Your task to perform on an android device: turn on showing notifications on the lock screen Image 0: 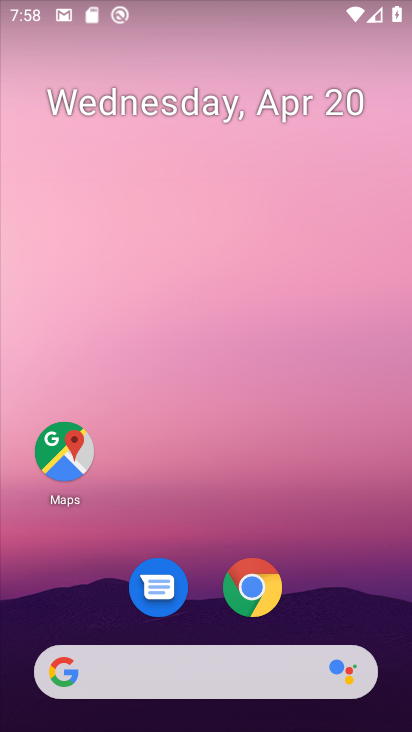
Step 0: drag from (209, 572) to (205, 4)
Your task to perform on an android device: turn on showing notifications on the lock screen Image 1: 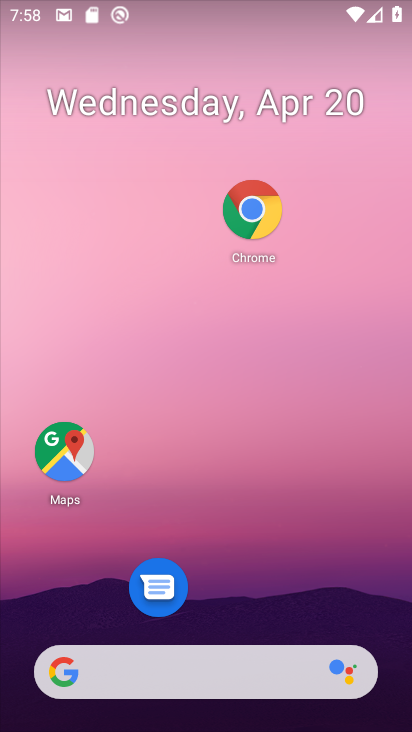
Step 1: drag from (215, 612) to (208, 75)
Your task to perform on an android device: turn on showing notifications on the lock screen Image 2: 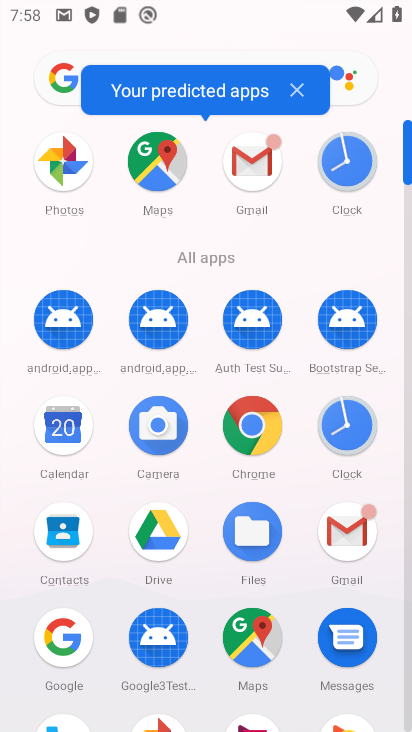
Step 2: drag from (117, 595) to (83, 168)
Your task to perform on an android device: turn on showing notifications on the lock screen Image 3: 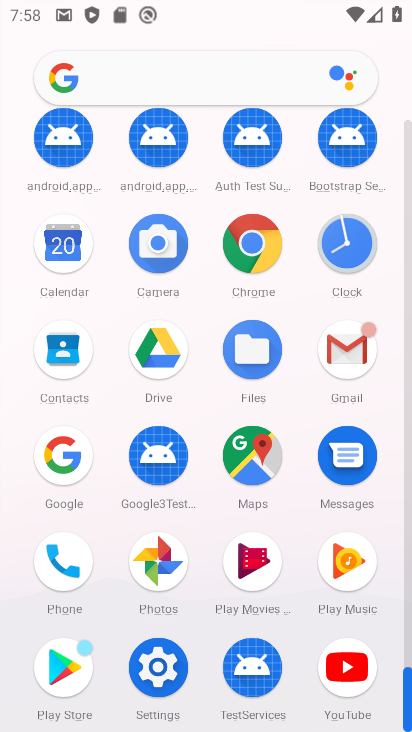
Step 3: click (149, 677)
Your task to perform on an android device: turn on showing notifications on the lock screen Image 4: 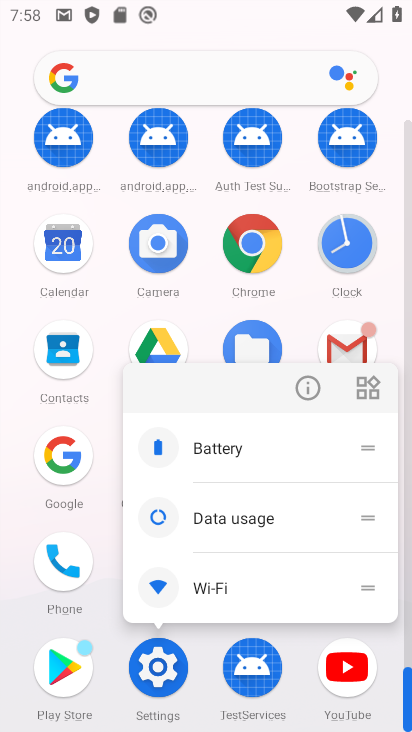
Step 4: click (160, 671)
Your task to perform on an android device: turn on showing notifications on the lock screen Image 5: 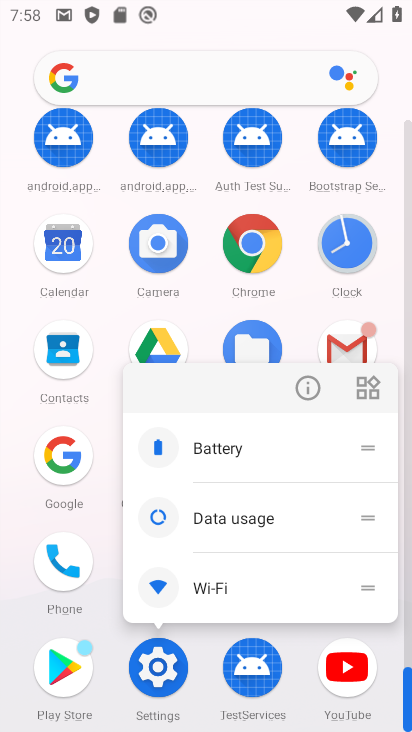
Step 5: click (167, 663)
Your task to perform on an android device: turn on showing notifications on the lock screen Image 6: 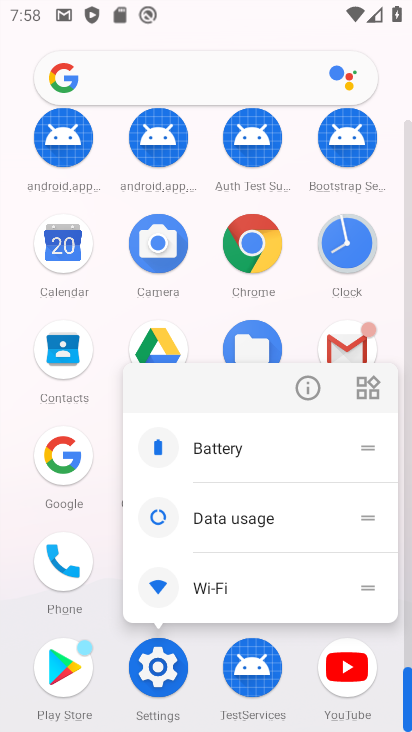
Step 6: click (157, 667)
Your task to perform on an android device: turn on showing notifications on the lock screen Image 7: 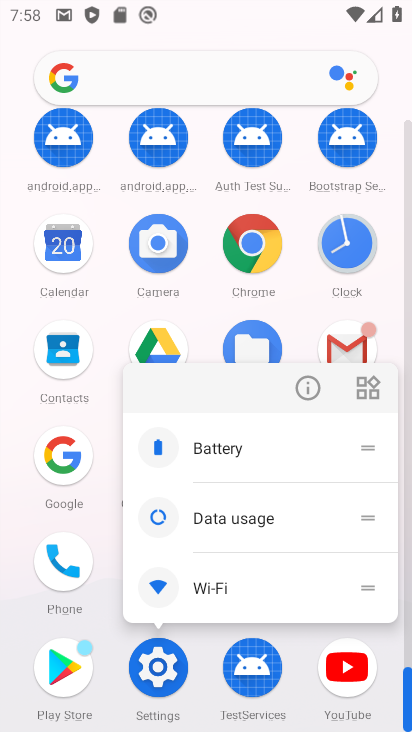
Step 7: click (144, 662)
Your task to perform on an android device: turn on showing notifications on the lock screen Image 8: 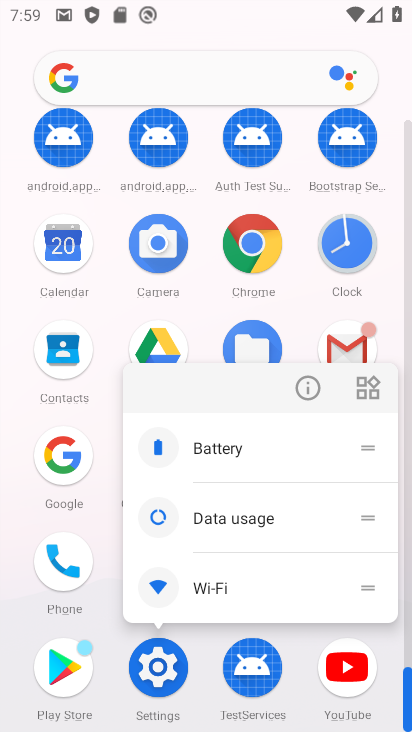
Step 8: click (148, 650)
Your task to perform on an android device: turn on showing notifications on the lock screen Image 9: 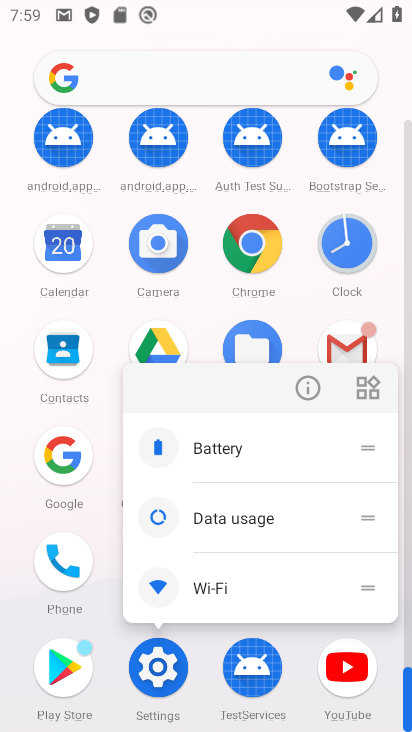
Step 9: click (163, 673)
Your task to perform on an android device: turn on showing notifications on the lock screen Image 10: 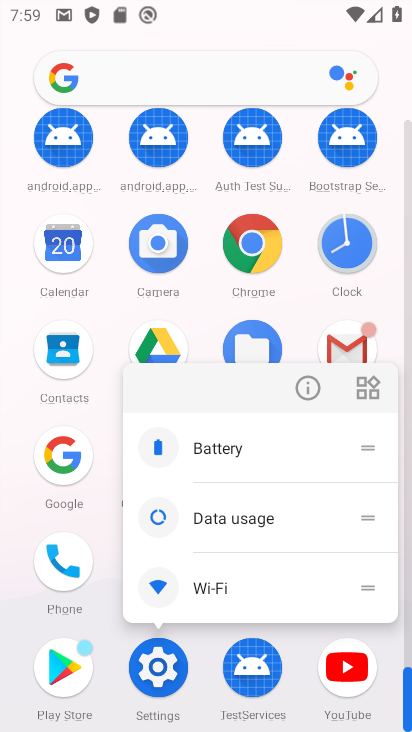
Step 10: click (162, 673)
Your task to perform on an android device: turn on showing notifications on the lock screen Image 11: 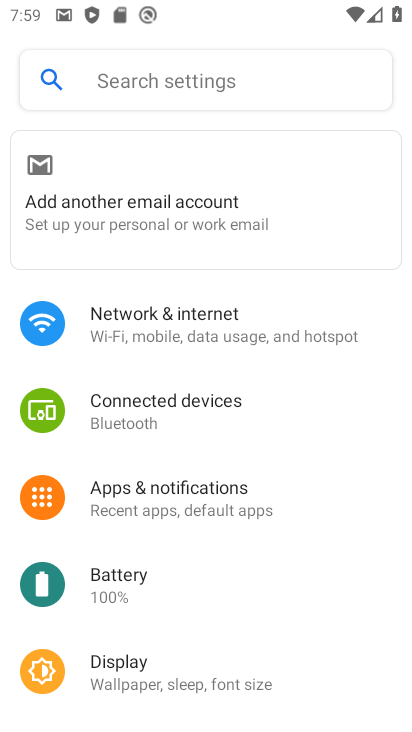
Step 11: drag from (306, 599) to (294, 229)
Your task to perform on an android device: turn on showing notifications on the lock screen Image 12: 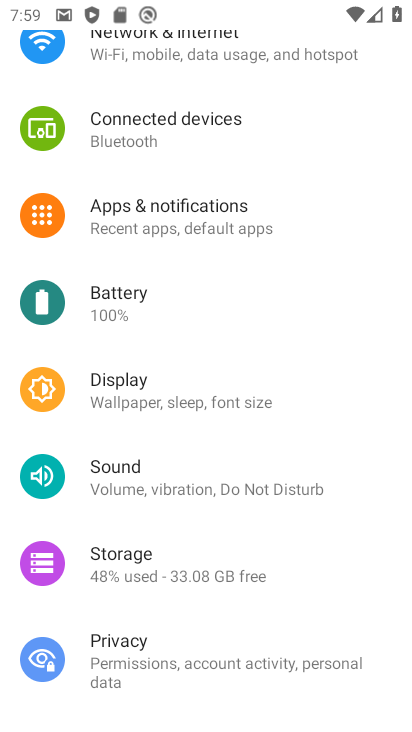
Step 12: click (131, 218)
Your task to perform on an android device: turn on showing notifications on the lock screen Image 13: 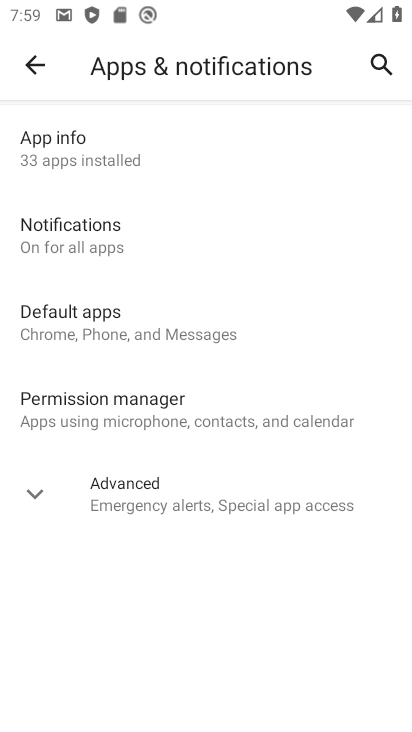
Step 13: click (75, 255)
Your task to perform on an android device: turn on showing notifications on the lock screen Image 14: 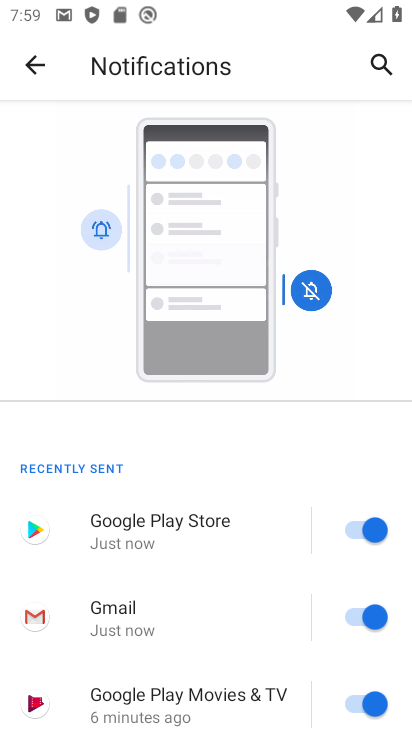
Step 14: drag from (268, 578) to (224, 77)
Your task to perform on an android device: turn on showing notifications on the lock screen Image 15: 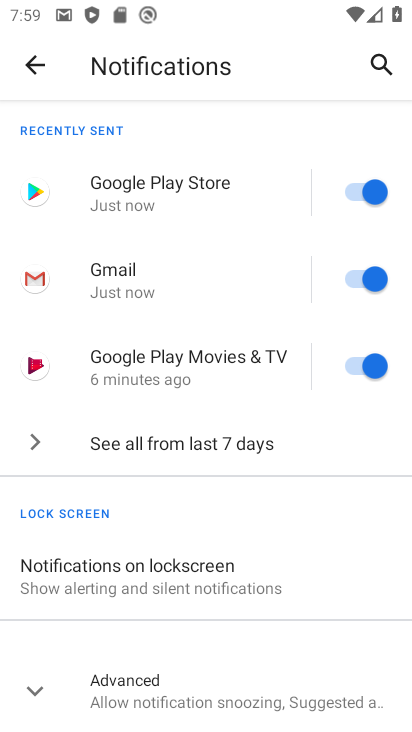
Step 15: click (228, 586)
Your task to perform on an android device: turn on showing notifications on the lock screen Image 16: 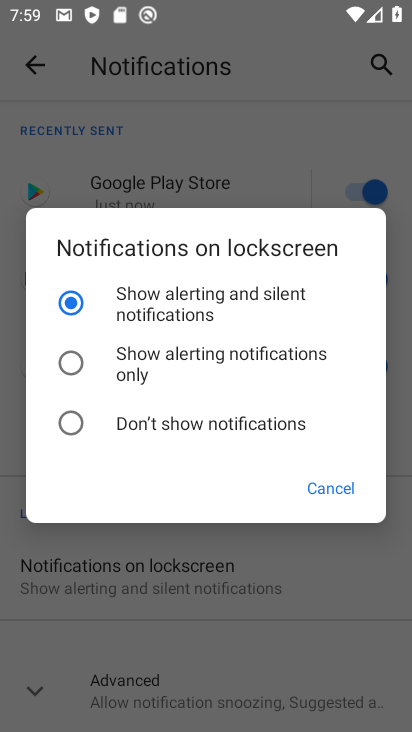
Step 16: click (139, 288)
Your task to perform on an android device: turn on showing notifications on the lock screen Image 17: 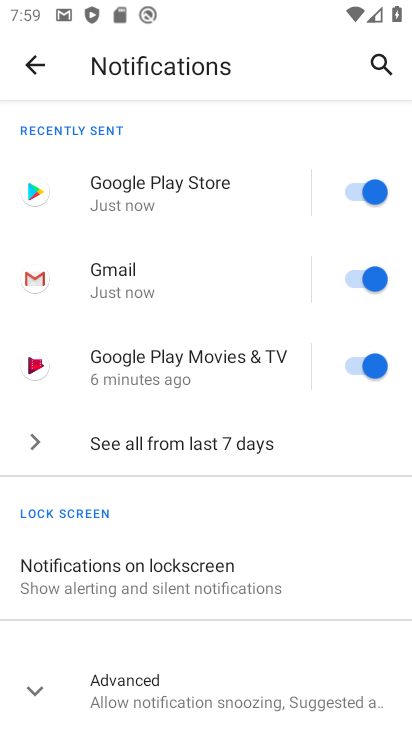
Step 17: task complete